Your task to perform on an android device: manage bookmarks in the chrome app Image 0: 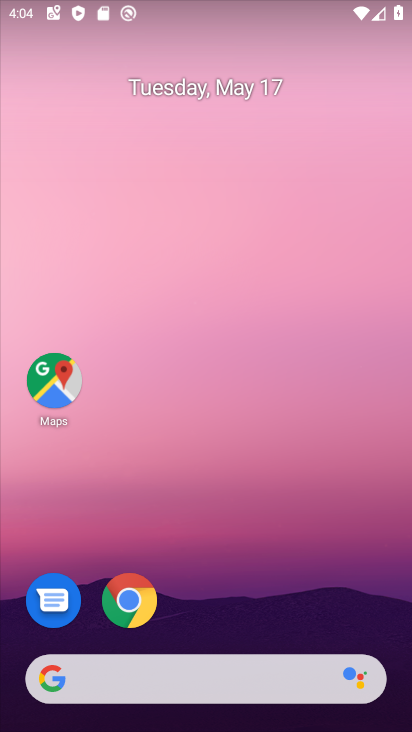
Step 0: click (133, 609)
Your task to perform on an android device: manage bookmarks in the chrome app Image 1: 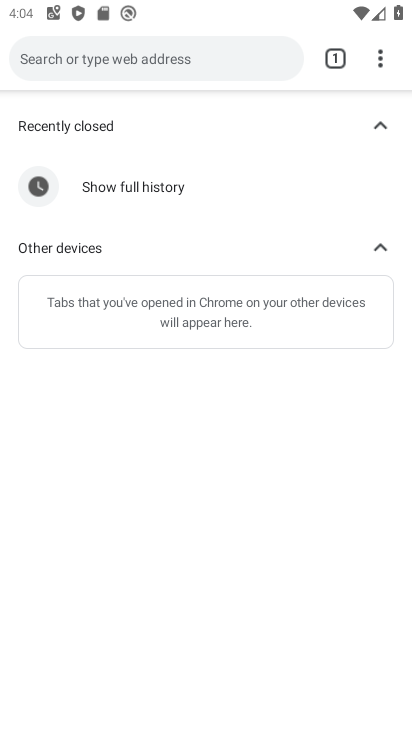
Step 1: click (380, 57)
Your task to perform on an android device: manage bookmarks in the chrome app Image 2: 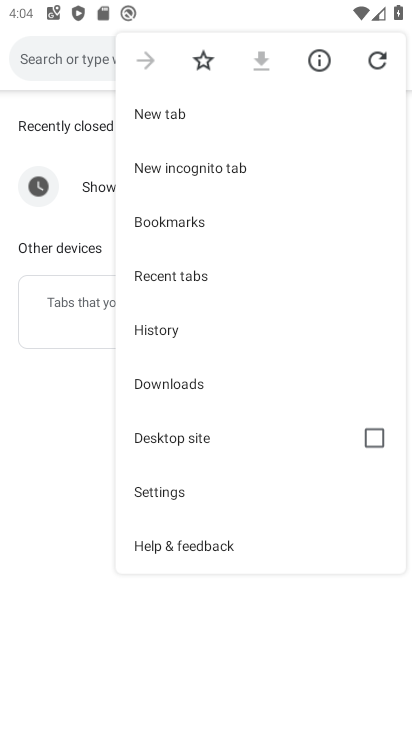
Step 2: click (186, 235)
Your task to perform on an android device: manage bookmarks in the chrome app Image 3: 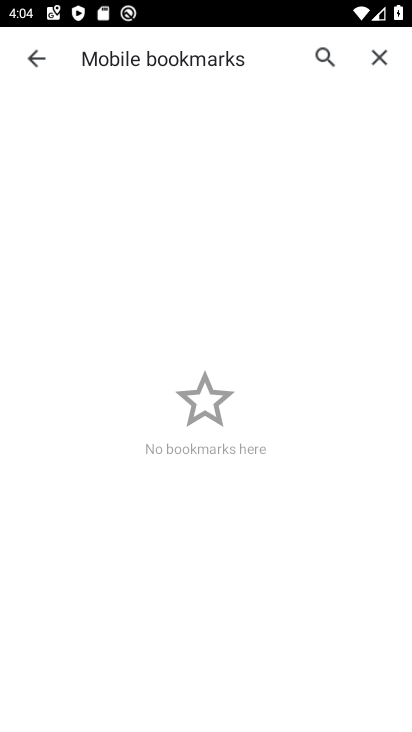
Step 3: task complete